Your task to perform on an android device: all mails in gmail Image 0: 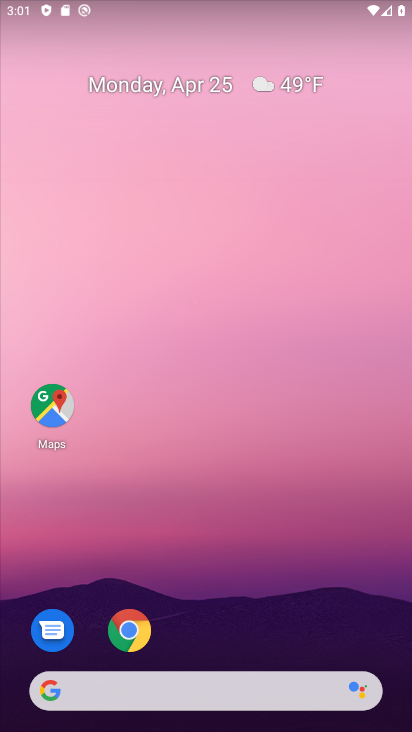
Step 0: drag from (278, 593) to (237, 44)
Your task to perform on an android device: all mails in gmail Image 1: 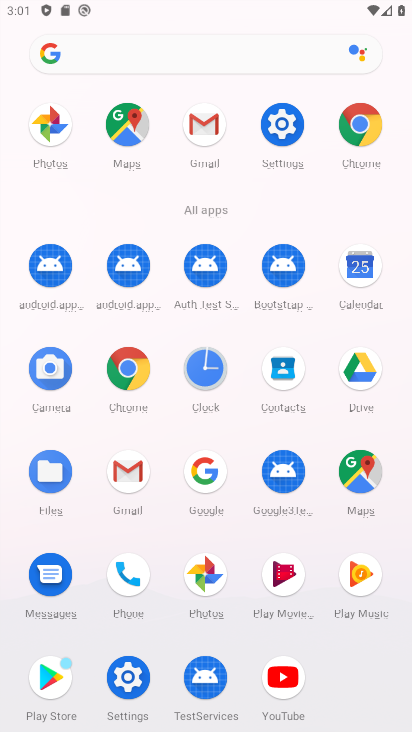
Step 1: click (199, 131)
Your task to perform on an android device: all mails in gmail Image 2: 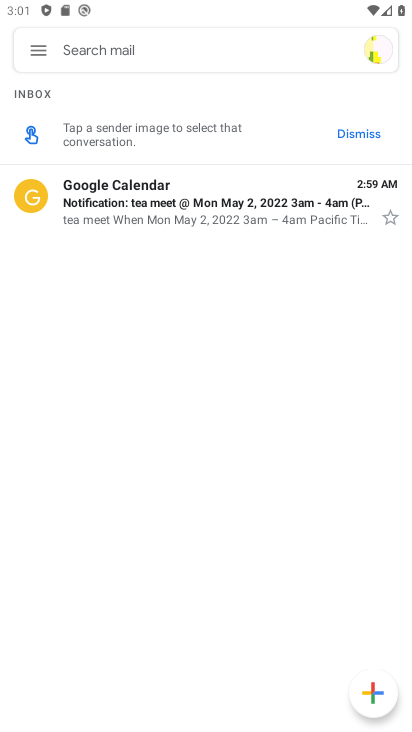
Step 2: click (38, 48)
Your task to perform on an android device: all mails in gmail Image 3: 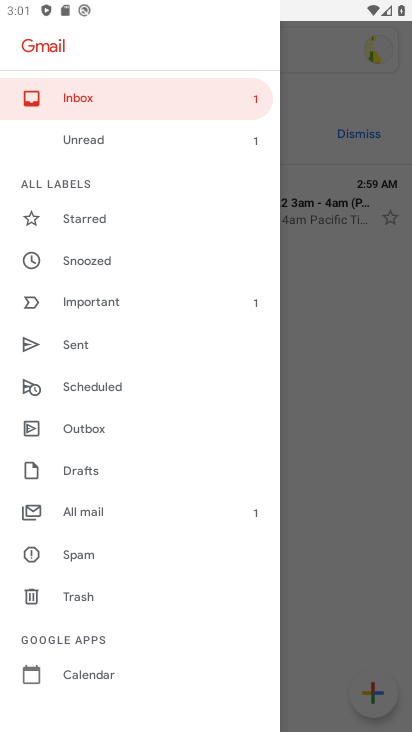
Step 3: click (124, 502)
Your task to perform on an android device: all mails in gmail Image 4: 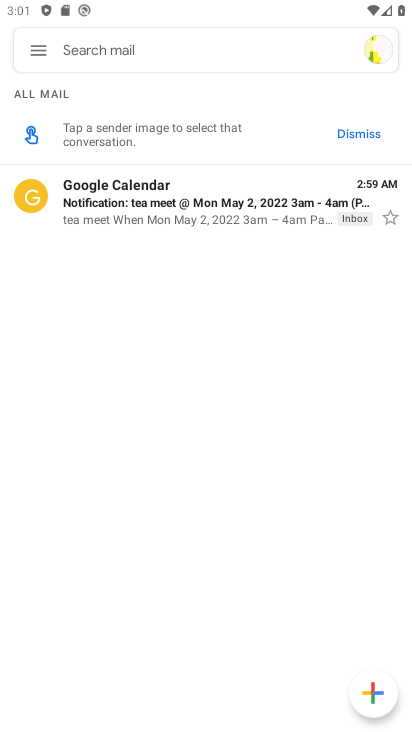
Step 4: task complete